Your task to perform on an android device: delete the emails in spam in the gmail app Image 0: 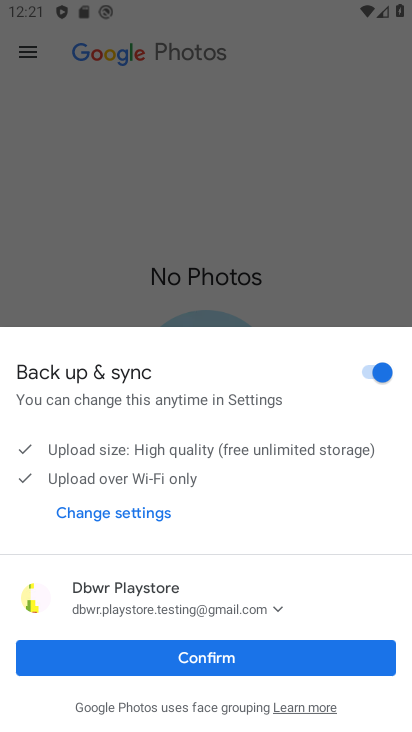
Step 0: press home button
Your task to perform on an android device: delete the emails in spam in the gmail app Image 1: 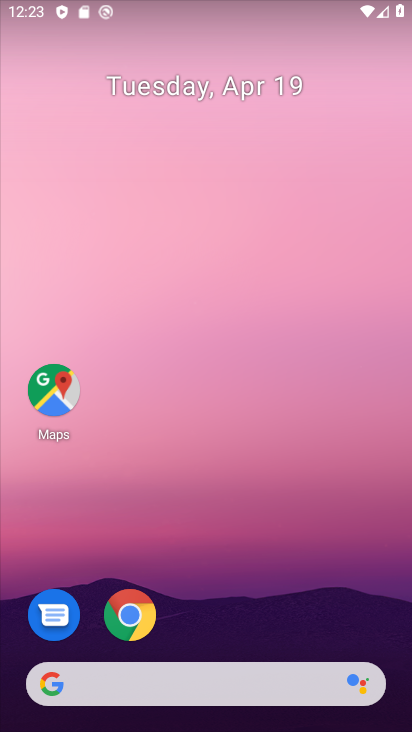
Step 1: drag from (285, 558) to (307, 76)
Your task to perform on an android device: delete the emails in spam in the gmail app Image 2: 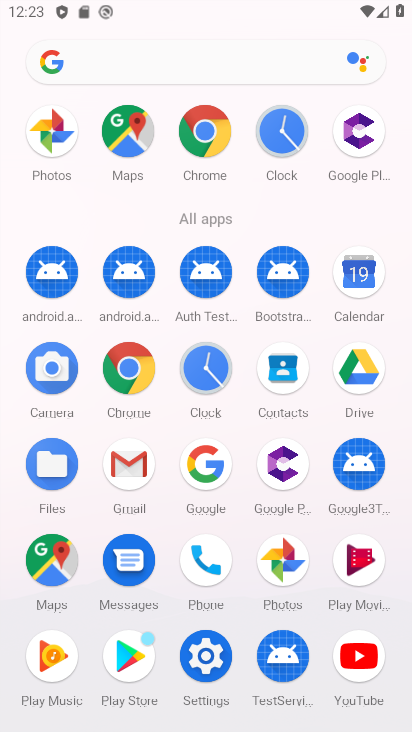
Step 2: drag from (323, 221) to (325, 23)
Your task to perform on an android device: delete the emails in spam in the gmail app Image 3: 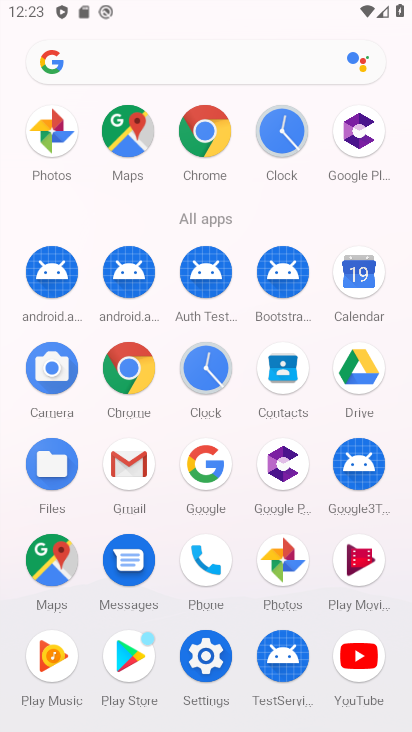
Step 3: click (138, 454)
Your task to perform on an android device: delete the emails in spam in the gmail app Image 4: 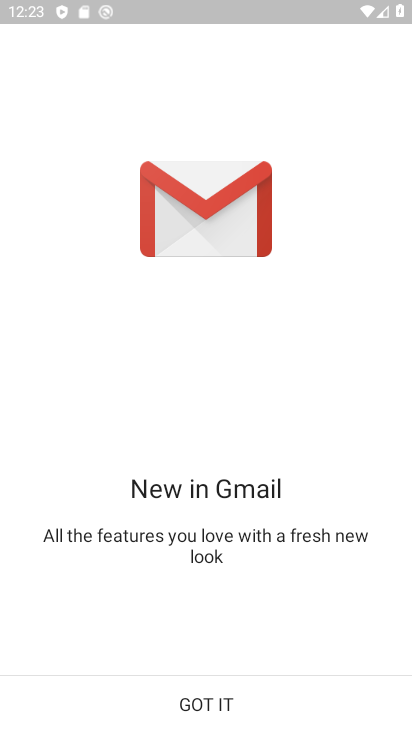
Step 4: click (196, 709)
Your task to perform on an android device: delete the emails in spam in the gmail app Image 5: 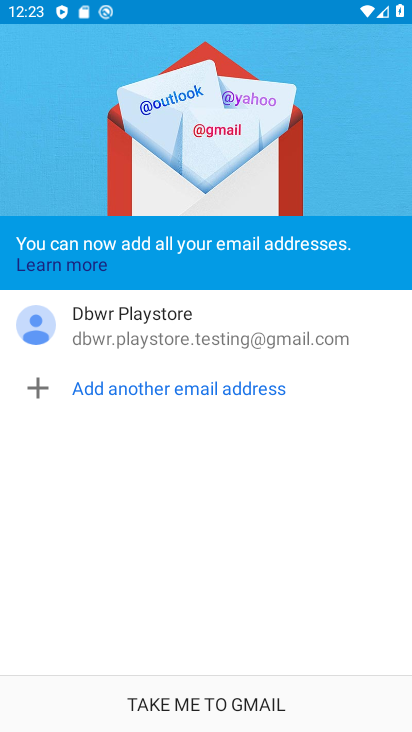
Step 5: click (195, 703)
Your task to perform on an android device: delete the emails in spam in the gmail app Image 6: 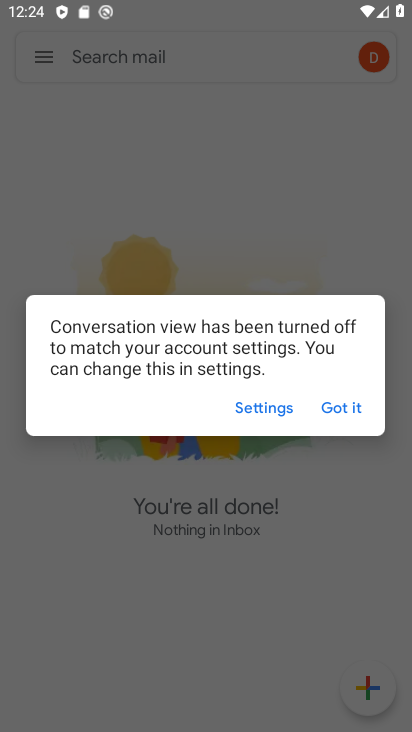
Step 6: click (328, 405)
Your task to perform on an android device: delete the emails in spam in the gmail app Image 7: 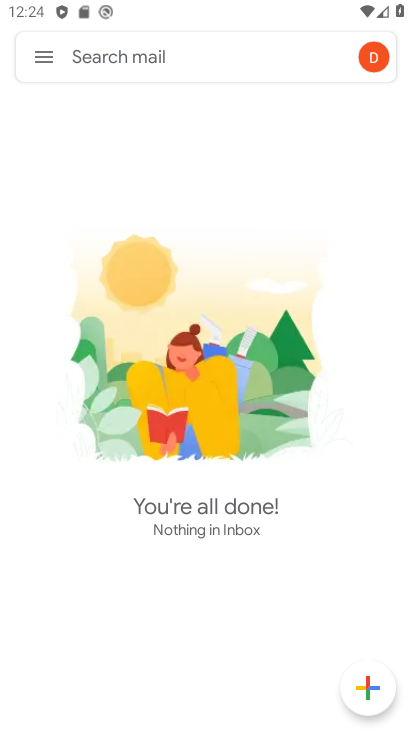
Step 7: click (35, 59)
Your task to perform on an android device: delete the emails in spam in the gmail app Image 8: 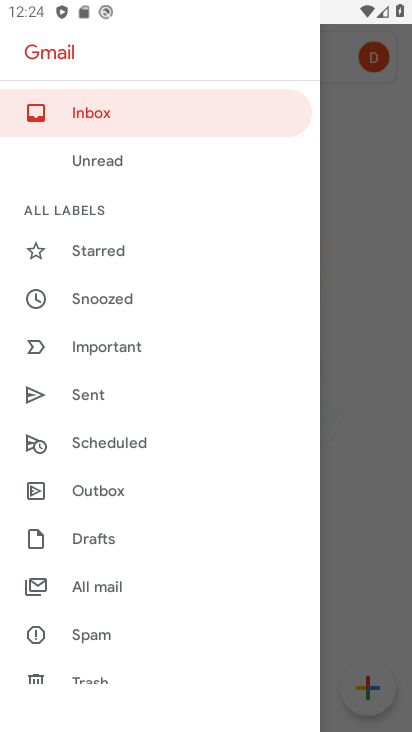
Step 8: drag from (165, 621) to (177, 345)
Your task to perform on an android device: delete the emails in spam in the gmail app Image 9: 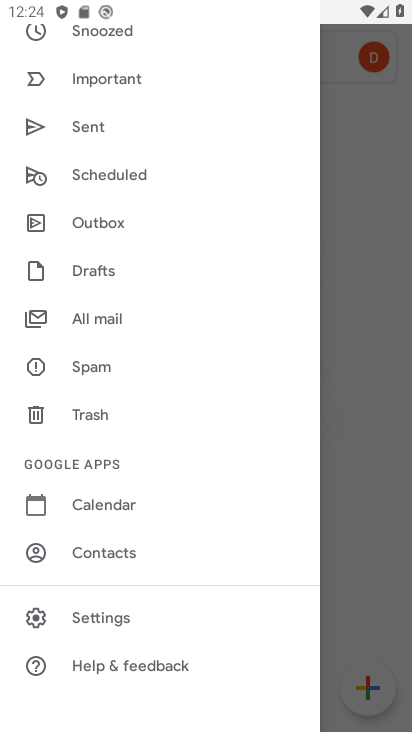
Step 9: click (94, 363)
Your task to perform on an android device: delete the emails in spam in the gmail app Image 10: 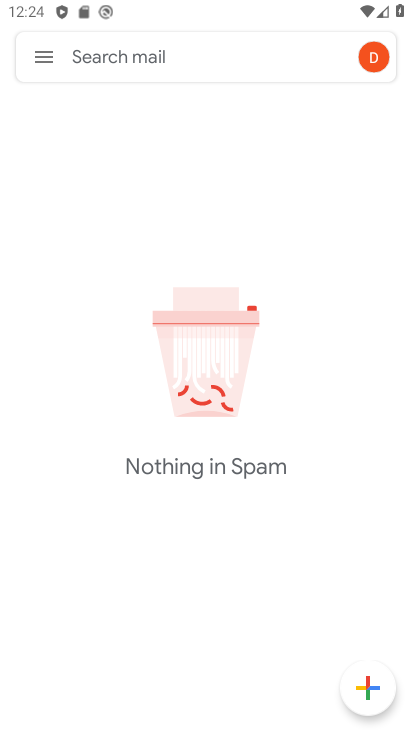
Step 10: task complete